Your task to perform on an android device: refresh tabs in the chrome app Image 0: 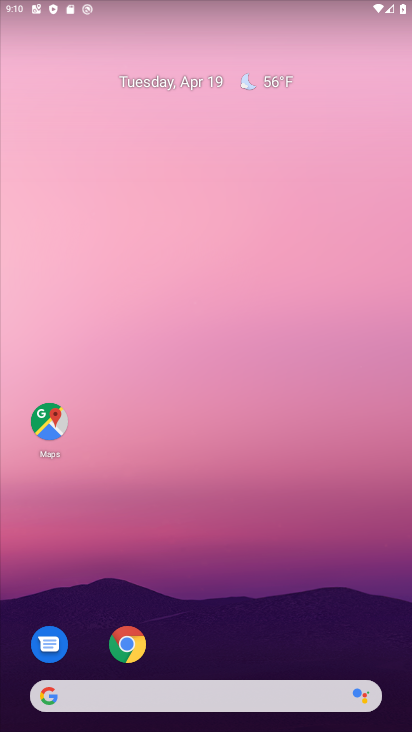
Step 0: click (136, 642)
Your task to perform on an android device: refresh tabs in the chrome app Image 1: 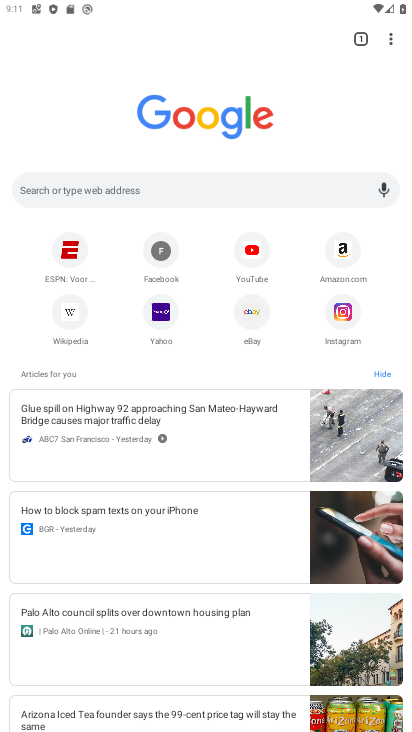
Step 1: click (391, 40)
Your task to perform on an android device: refresh tabs in the chrome app Image 2: 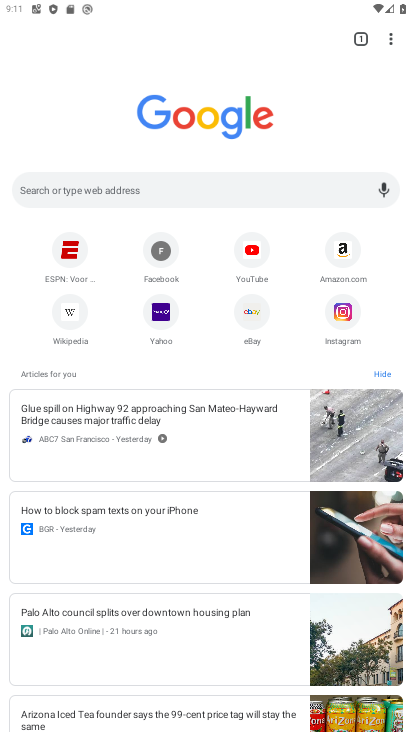
Step 2: task complete